Your task to perform on an android device: turn off wifi Image 0: 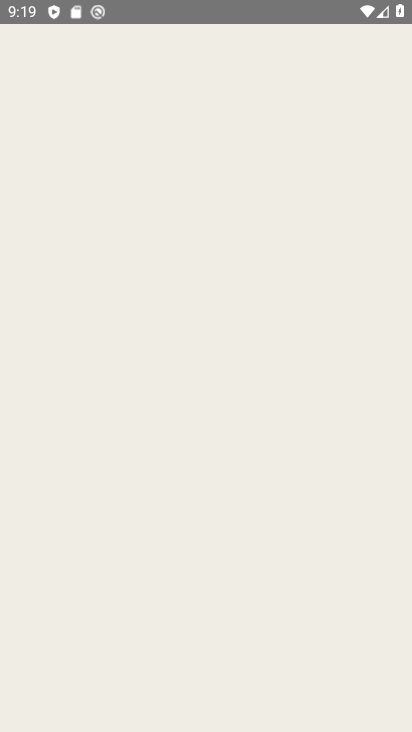
Step 0: click (136, 621)
Your task to perform on an android device: turn off wifi Image 1: 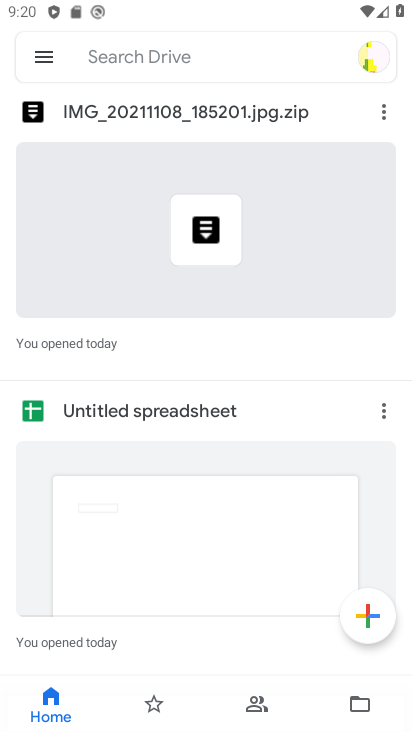
Step 1: press home button
Your task to perform on an android device: turn off wifi Image 2: 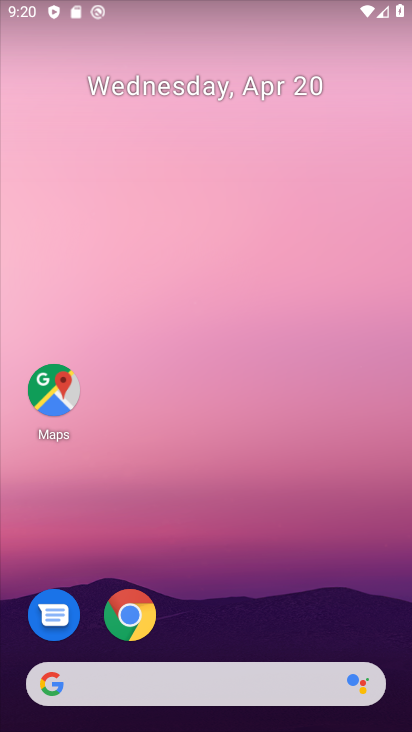
Step 2: drag from (227, 609) to (220, 51)
Your task to perform on an android device: turn off wifi Image 3: 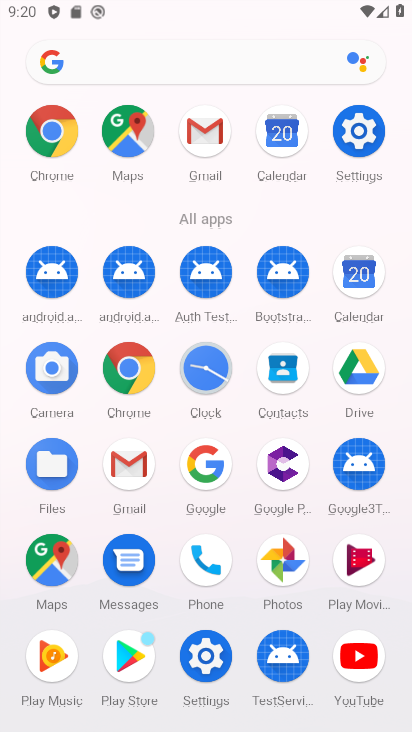
Step 3: click (358, 133)
Your task to perform on an android device: turn off wifi Image 4: 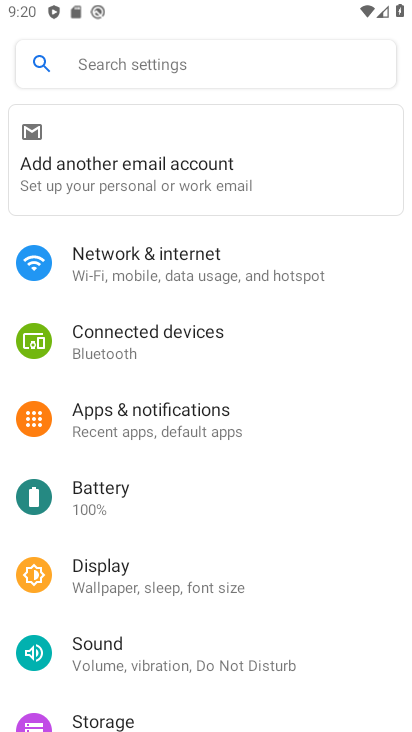
Step 4: click (139, 263)
Your task to perform on an android device: turn off wifi Image 5: 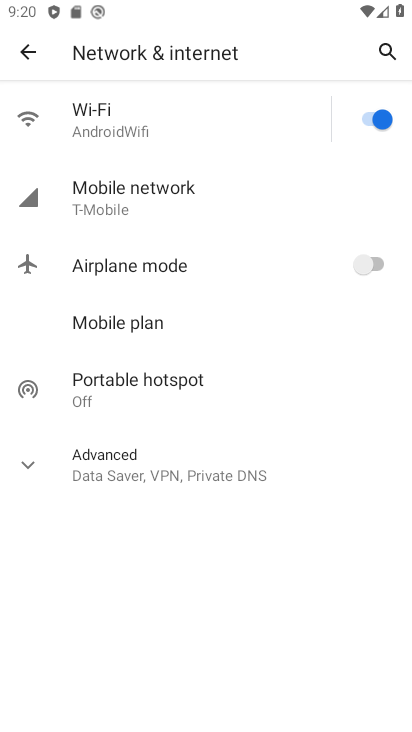
Step 5: click (378, 120)
Your task to perform on an android device: turn off wifi Image 6: 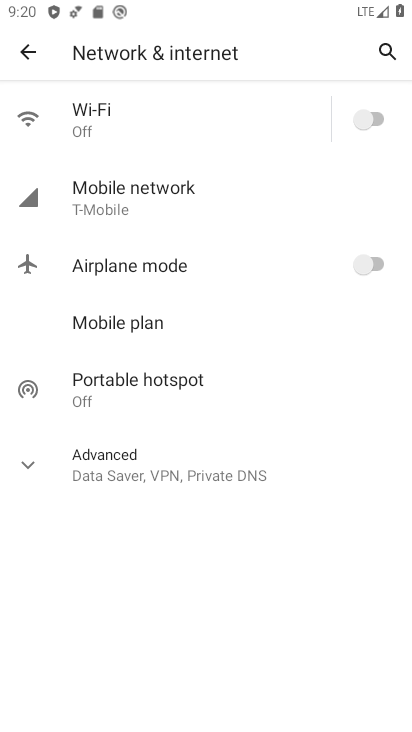
Step 6: task complete